Your task to perform on an android device: Open the web browser Image 0: 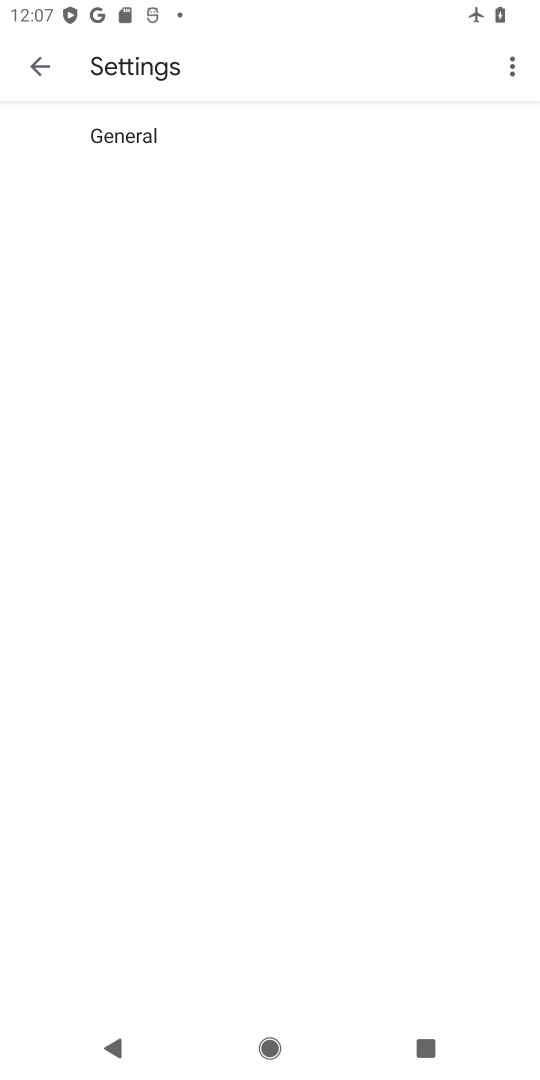
Step 0: press home button
Your task to perform on an android device: Open the web browser Image 1: 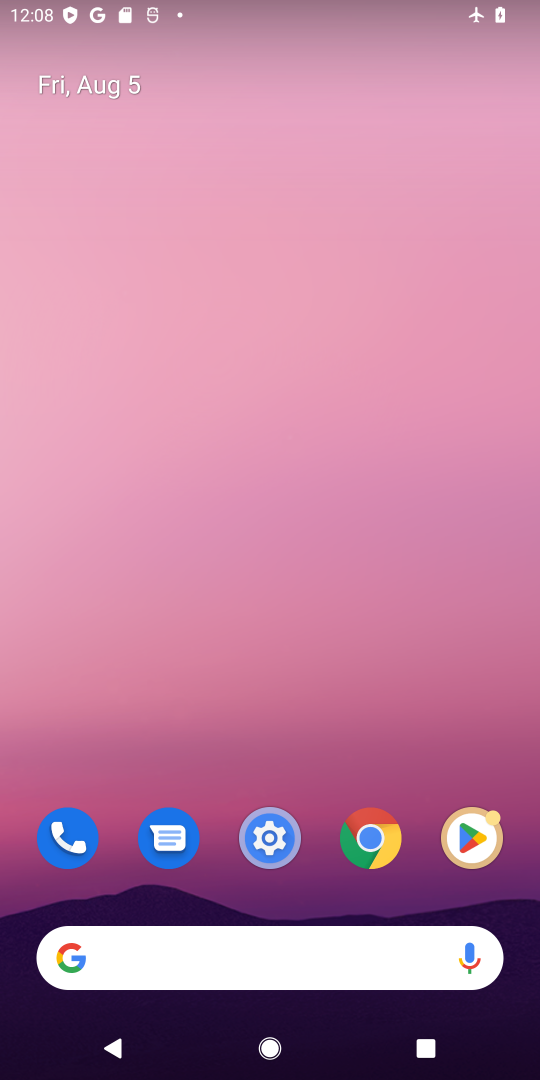
Step 1: click (369, 841)
Your task to perform on an android device: Open the web browser Image 2: 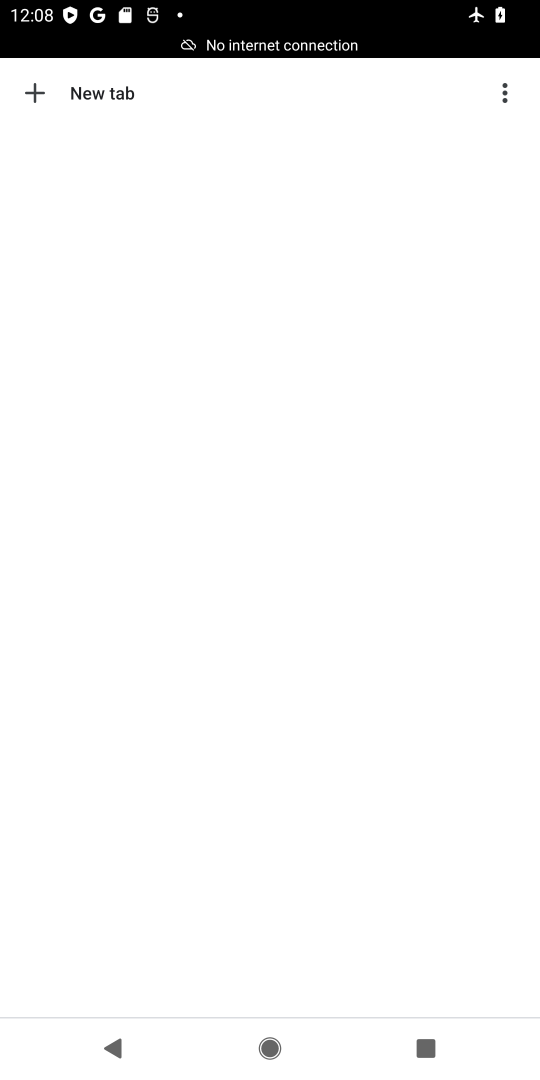
Step 2: task complete